Your task to perform on an android device: What's the weather going to be tomorrow? Image 0: 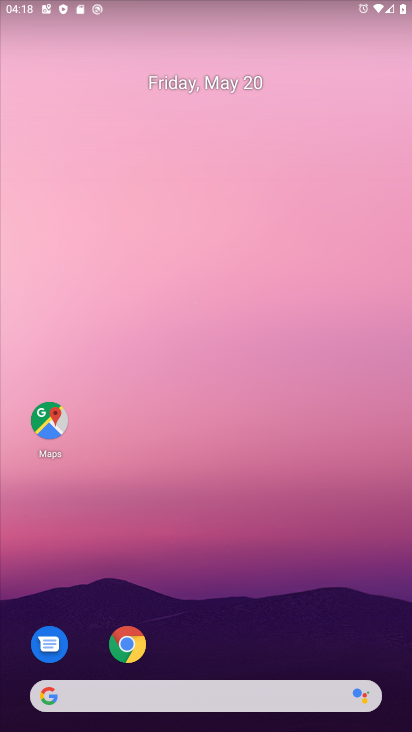
Step 0: drag from (282, 602) to (212, 206)
Your task to perform on an android device: What's the weather going to be tomorrow? Image 1: 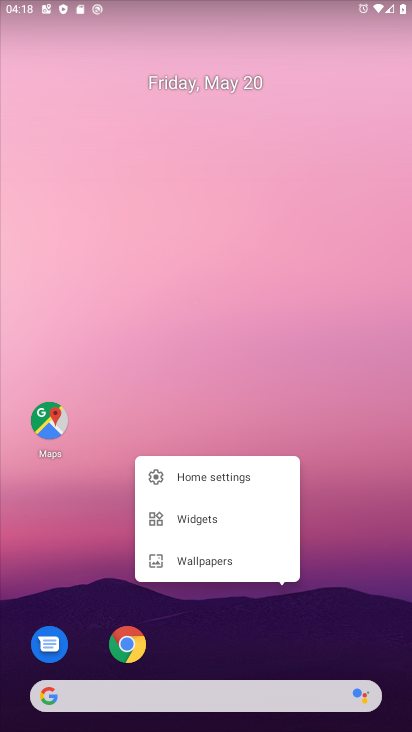
Step 1: click (212, 206)
Your task to perform on an android device: What's the weather going to be tomorrow? Image 2: 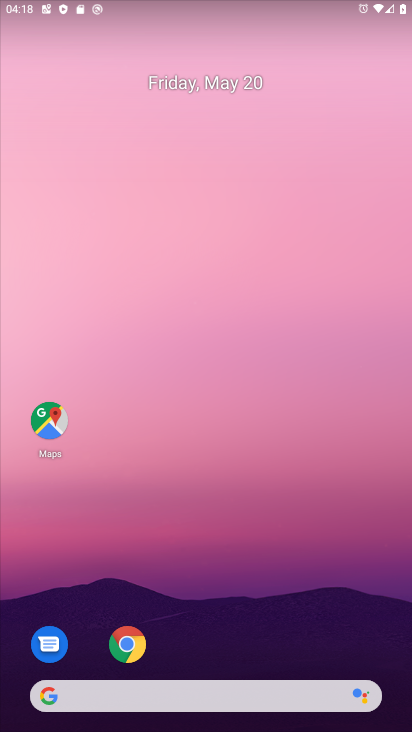
Step 2: drag from (247, 586) to (186, 50)
Your task to perform on an android device: What's the weather going to be tomorrow? Image 3: 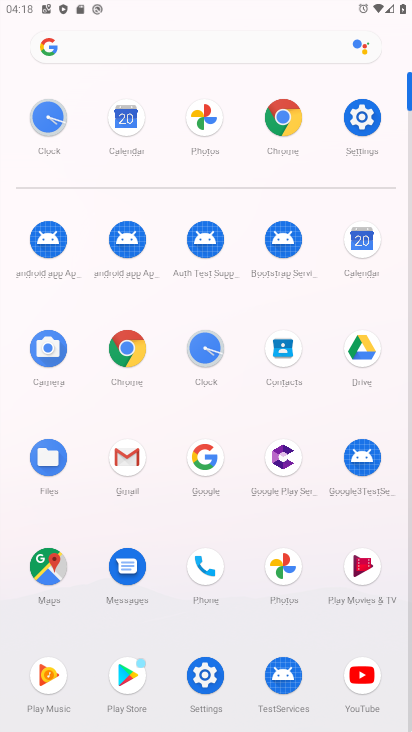
Step 3: click (359, 238)
Your task to perform on an android device: What's the weather going to be tomorrow? Image 4: 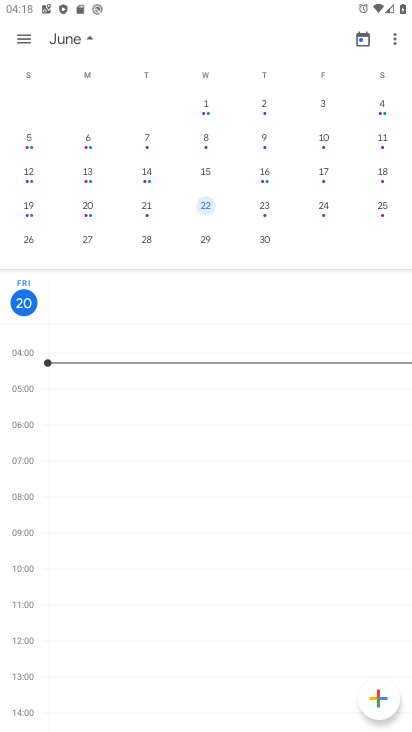
Step 4: task complete